Your task to perform on an android device: Go to calendar. Show me events next week Image 0: 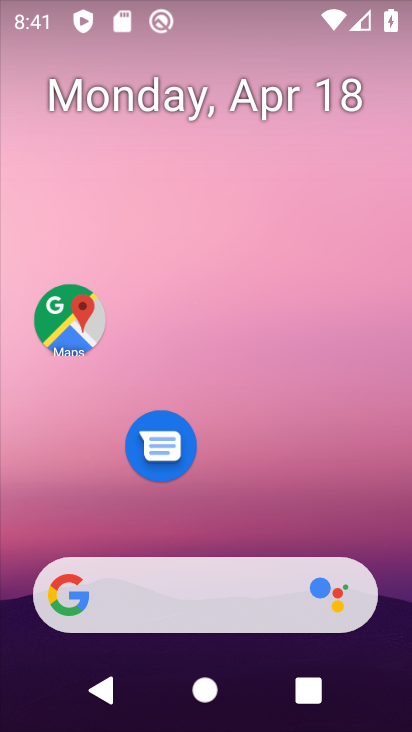
Step 0: drag from (220, 528) to (240, 35)
Your task to perform on an android device: Go to calendar. Show me events next week Image 1: 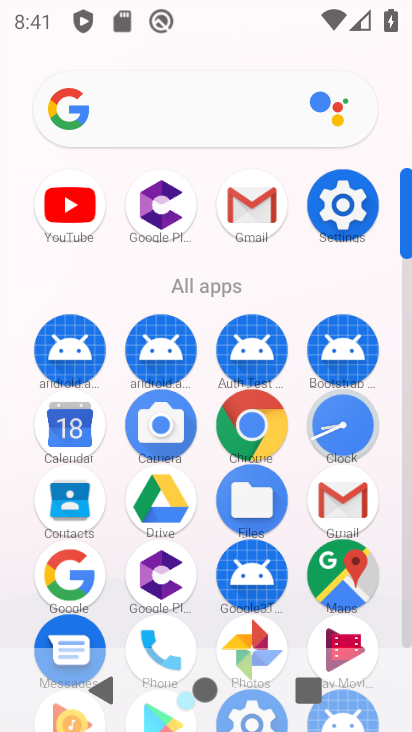
Step 1: click (69, 423)
Your task to perform on an android device: Go to calendar. Show me events next week Image 2: 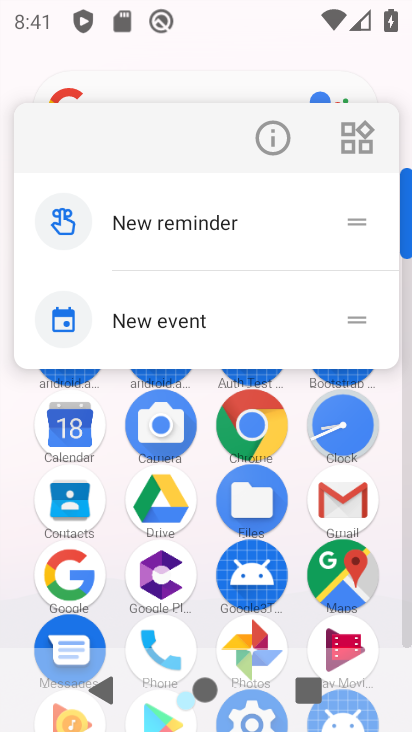
Step 2: click (70, 425)
Your task to perform on an android device: Go to calendar. Show me events next week Image 3: 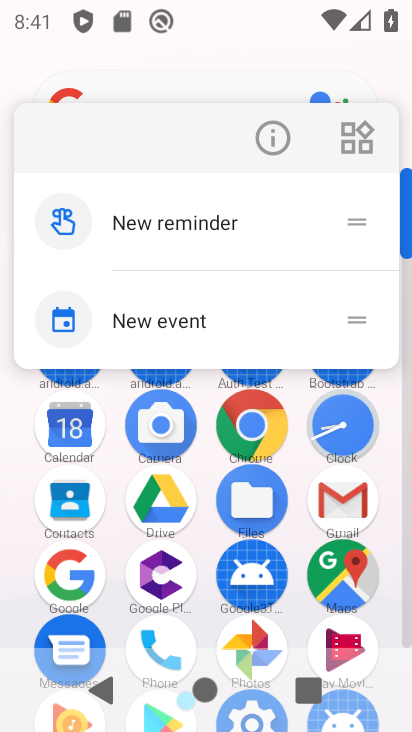
Step 3: click (68, 423)
Your task to perform on an android device: Go to calendar. Show me events next week Image 4: 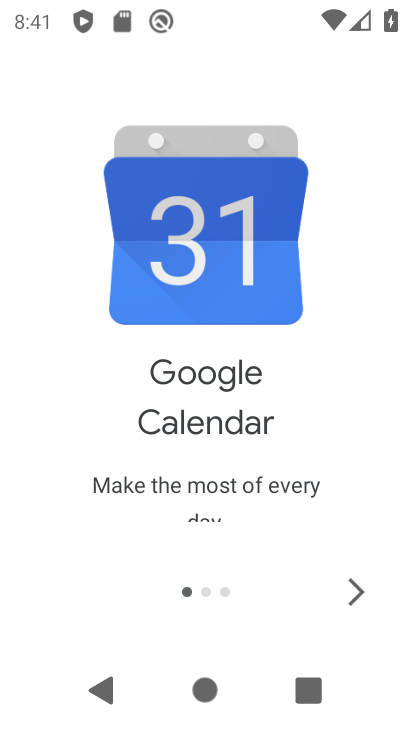
Step 4: click (349, 585)
Your task to perform on an android device: Go to calendar. Show me events next week Image 5: 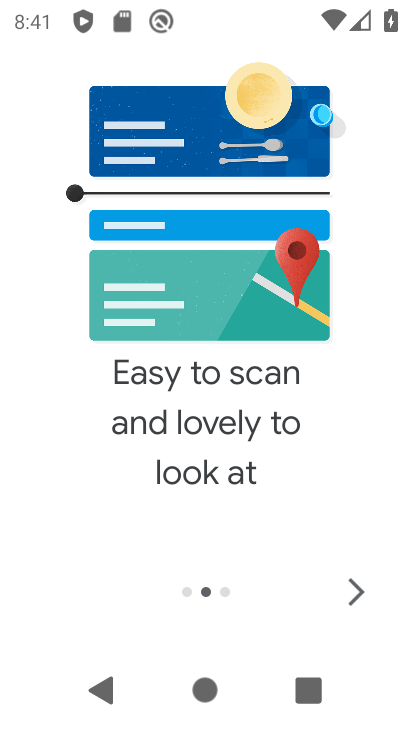
Step 5: click (349, 585)
Your task to perform on an android device: Go to calendar. Show me events next week Image 6: 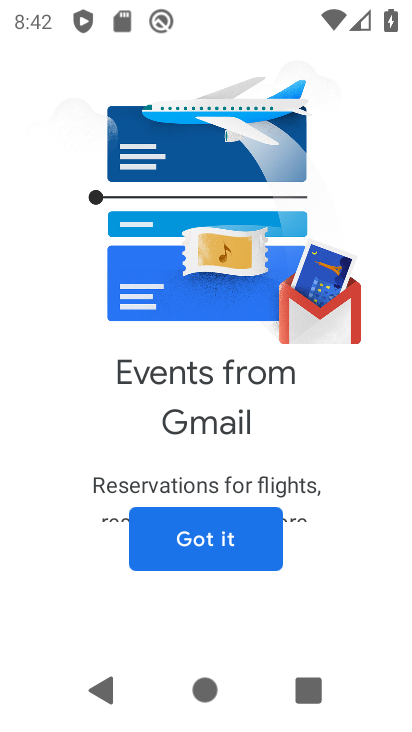
Step 6: click (216, 547)
Your task to perform on an android device: Go to calendar. Show me events next week Image 7: 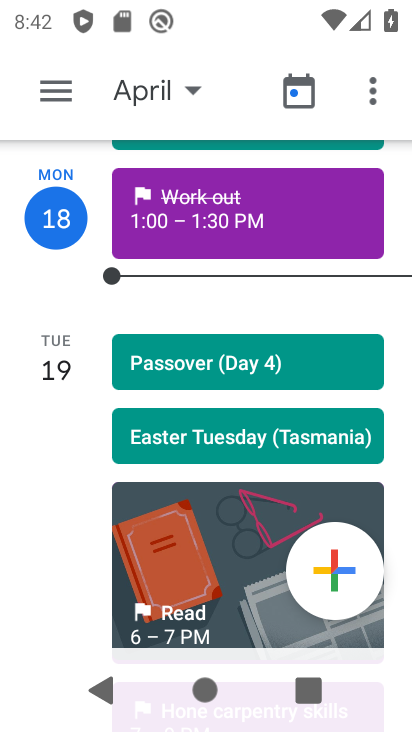
Step 7: click (54, 92)
Your task to perform on an android device: Go to calendar. Show me events next week Image 8: 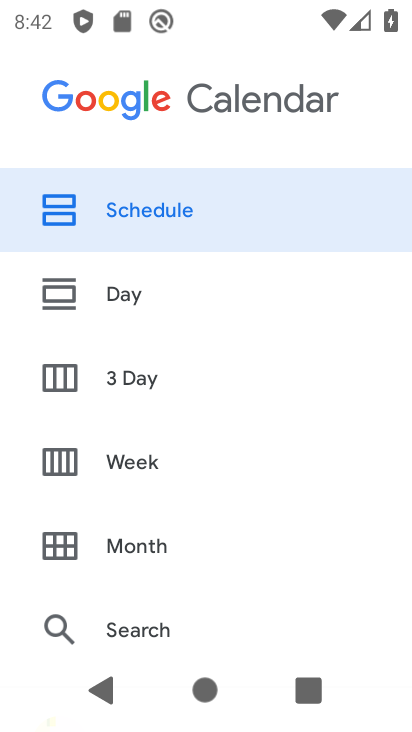
Step 8: click (89, 459)
Your task to perform on an android device: Go to calendar. Show me events next week Image 9: 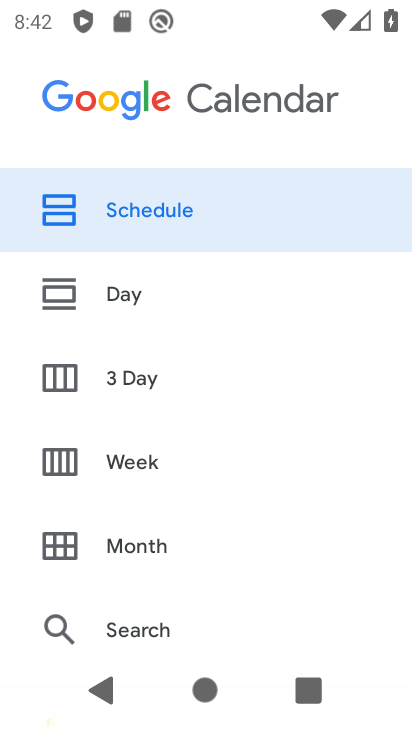
Step 9: click (96, 456)
Your task to perform on an android device: Go to calendar. Show me events next week Image 10: 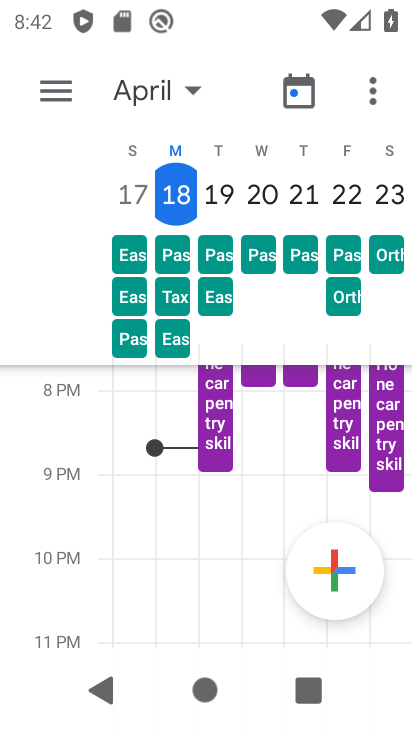
Step 10: drag from (399, 187) to (151, 189)
Your task to perform on an android device: Go to calendar. Show me events next week Image 11: 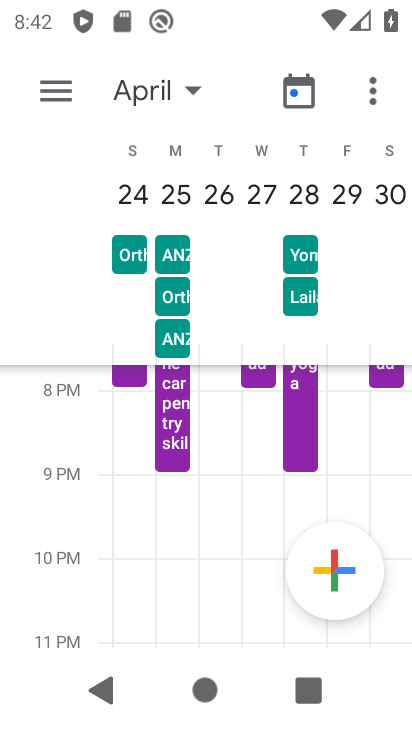
Step 11: click (130, 191)
Your task to perform on an android device: Go to calendar. Show me events next week Image 12: 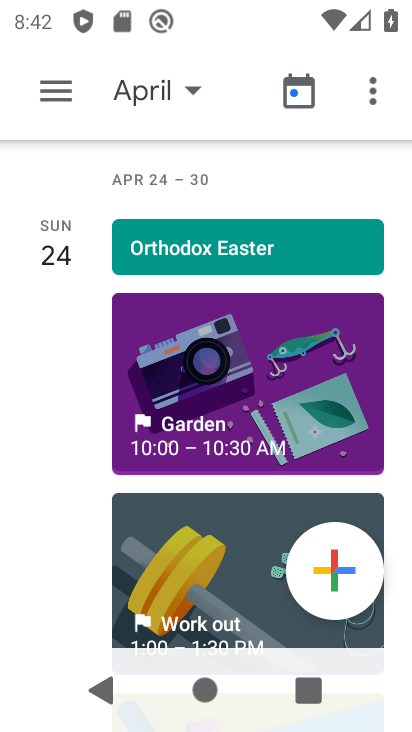
Step 12: task complete